Your task to perform on an android device: find snoozed emails in the gmail app Image 0: 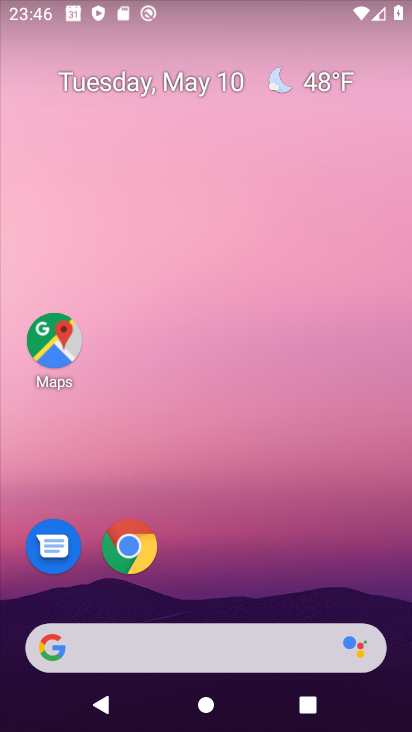
Step 0: drag from (196, 521) to (181, 131)
Your task to perform on an android device: find snoozed emails in the gmail app Image 1: 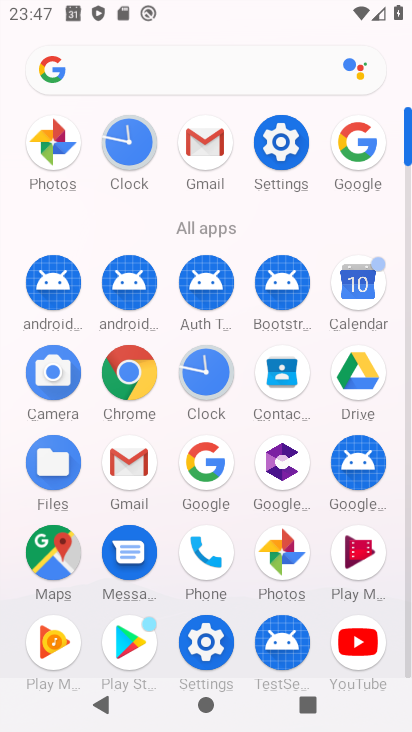
Step 1: click (199, 176)
Your task to perform on an android device: find snoozed emails in the gmail app Image 2: 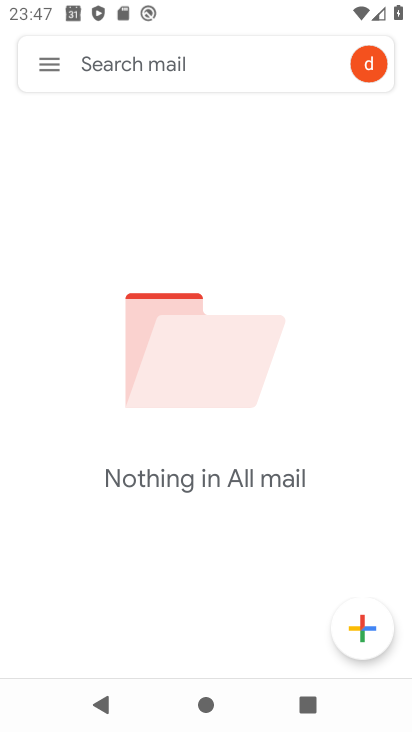
Step 2: click (51, 59)
Your task to perform on an android device: find snoozed emails in the gmail app Image 3: 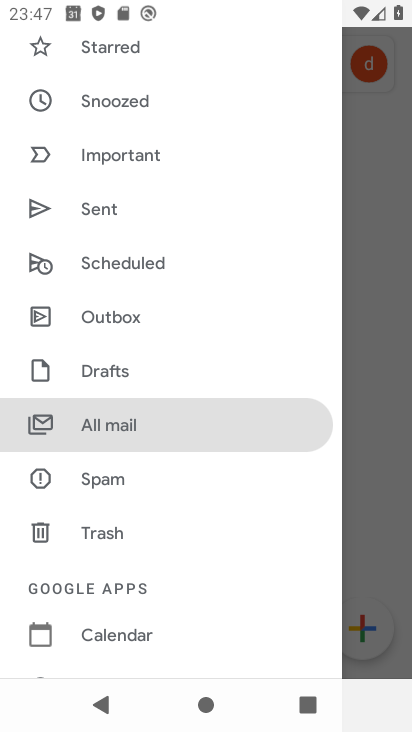
Step 3: click (112, 106)
Your task to perform on an android device: find snoozed emails in the gmail app Image 4: 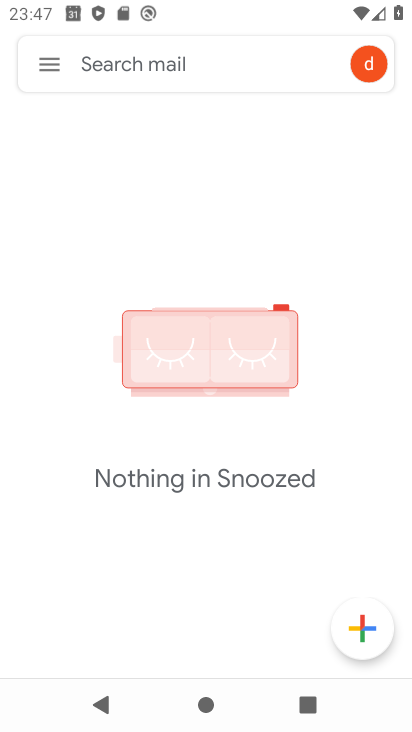
Step 4: task complete